Your task to perform on an android device: Turn on the flashlight Image 0: 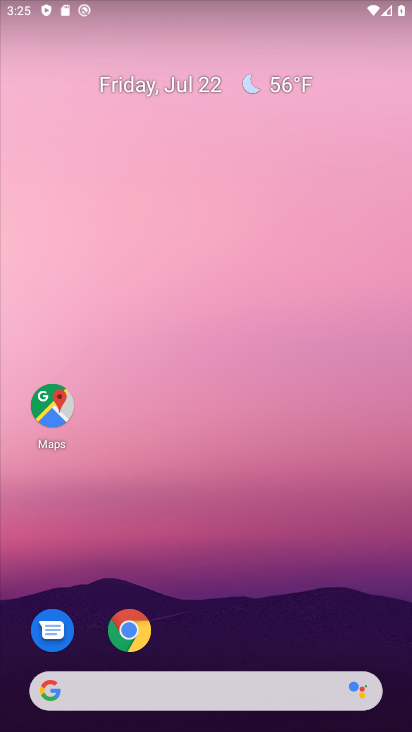
Step 0: drag from (276, 85) to (320, 402)
Your task to perform on an android device: Turn on the flashlight Image 1: 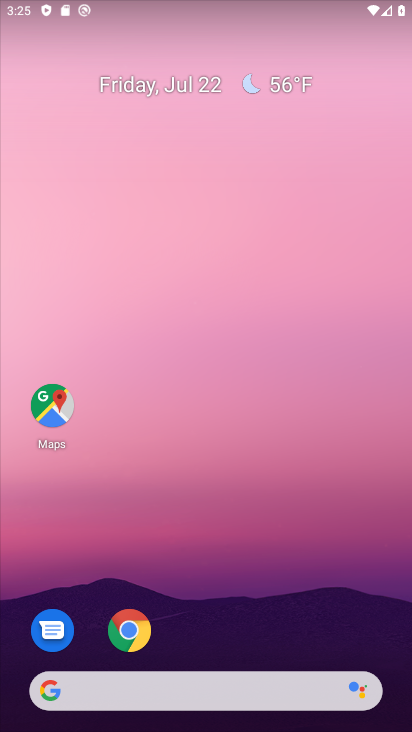
Step 1: task complete